Your task to perform on an android device: refresh tabs in the chrome app Image 0: 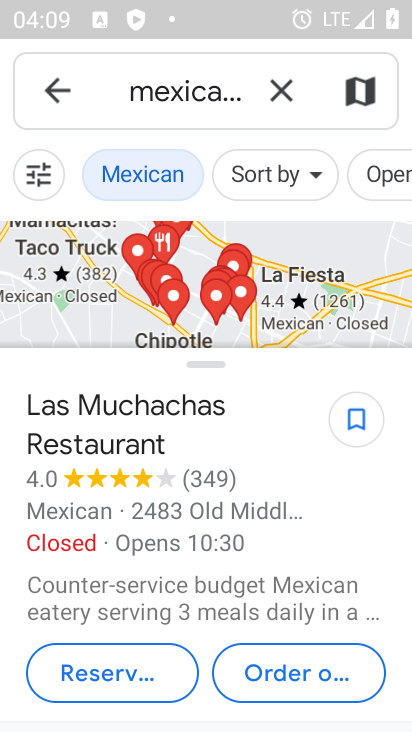
Step 0: press home button
Your task to perform on an android device: refresh tabs in the chrome app Image 1: 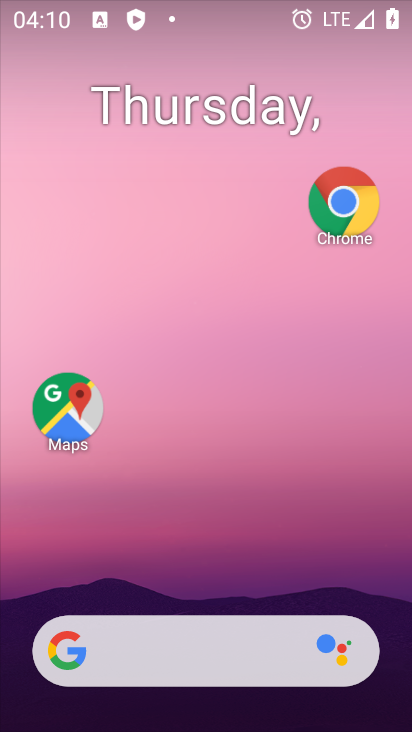
Step 1: drag from (203, 598) to (14, 247)
Your task to perform on an android device: refresh tabs in the chrome app Image 2: 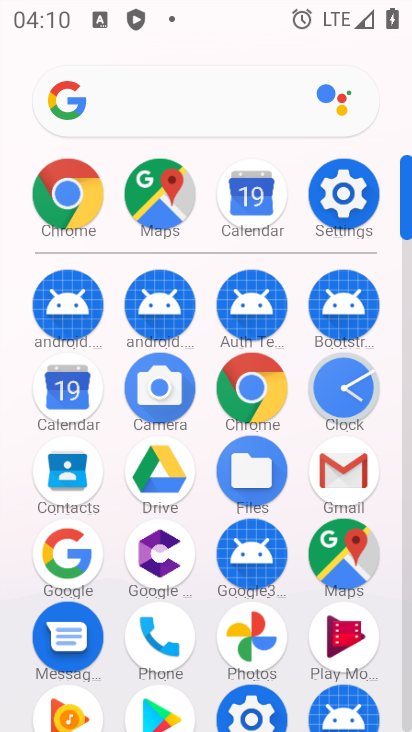
Step 2: click (236, 391)
Your task to perform on an android device: refresh tabs in the chrome app Image 3: 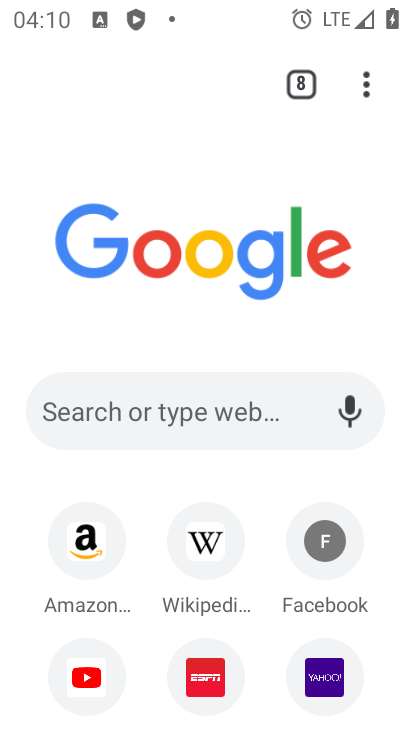
Step 3: task complete